Your task to perform on an android device: Go to Maps Image 0: 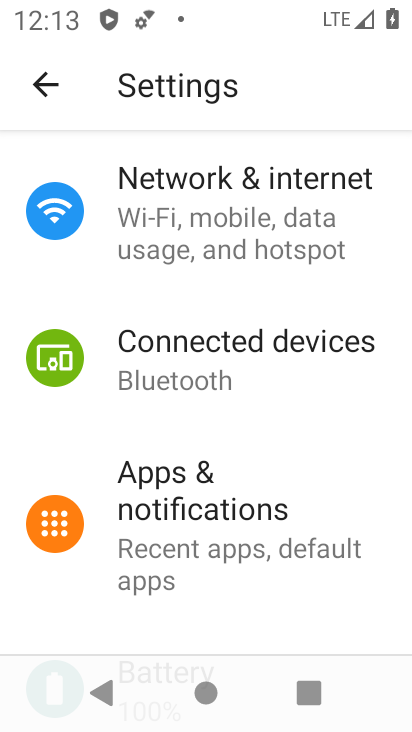
Step 0: press home button
Your task to perform on an android device: Go to Maps Image 1: 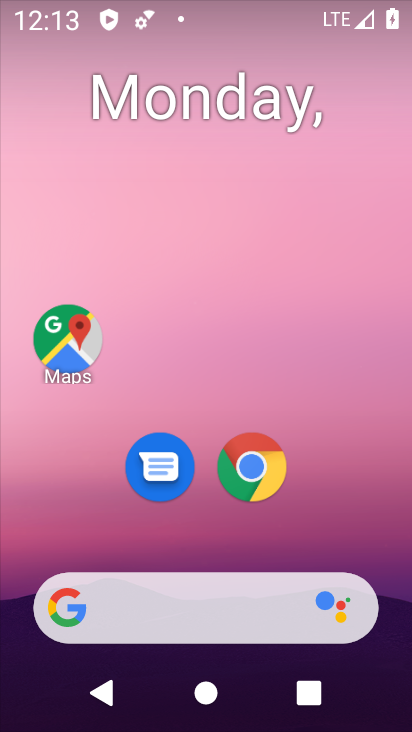
Step 1: click (64, 338)
Your task to perform on an android device: Go to Maps Image 2: 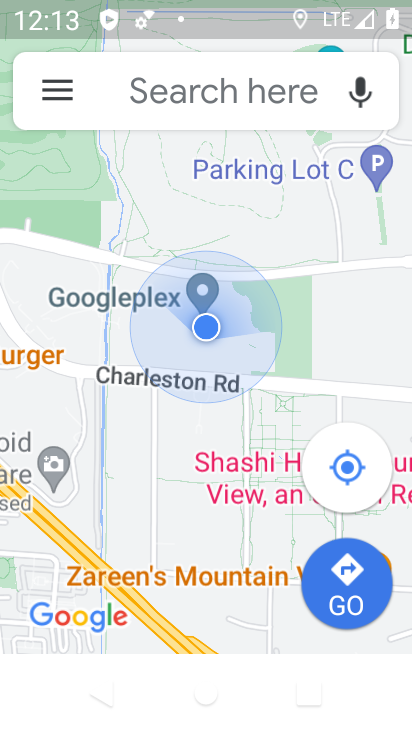
Step 2: task complete